Your task to perform on an android device: turn notification dots on Image 0: 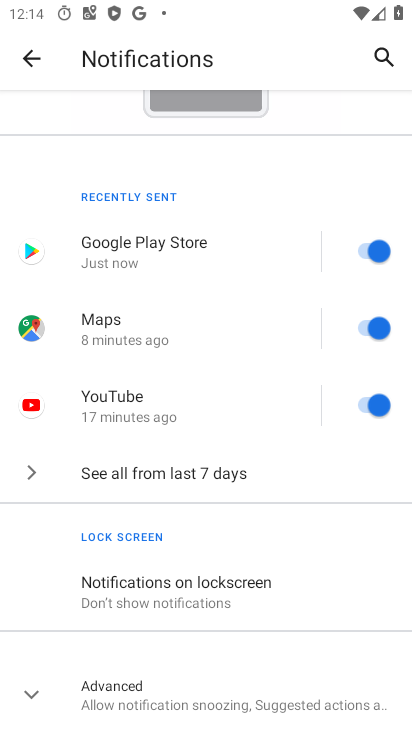
Step 0: press home button
Your task to perform on an android device: turn notification dots on Image 1: 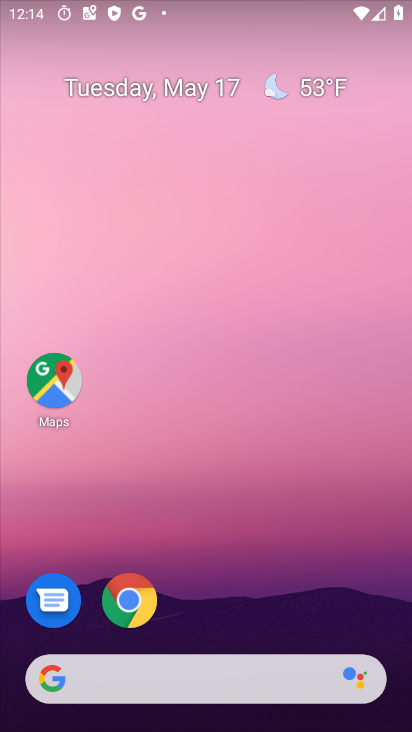
Step 1: drag from (253, 625) to (337, 42)
Your task to perform on an android device: turn notification dots on Image 2: 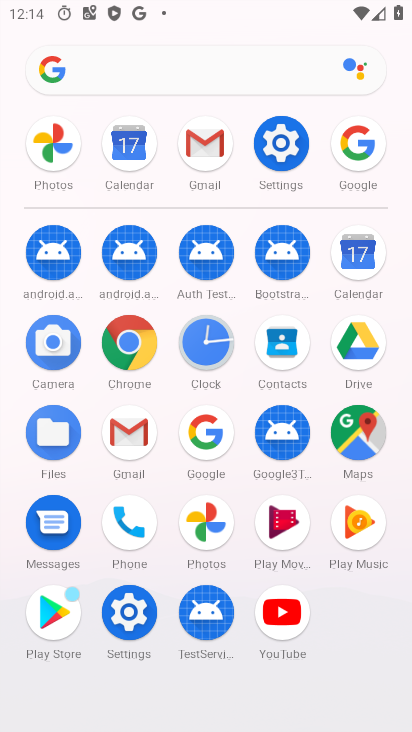
Step 2: click (287, 153)
Your task to perform on an android device: turn notification dots on Image 3: 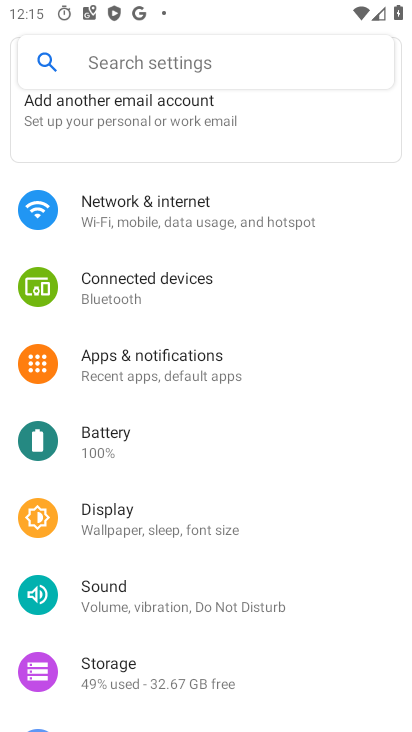
Step 3: click (147, 362)
Your task to perform on an android device: turn notification dots on Image 4: 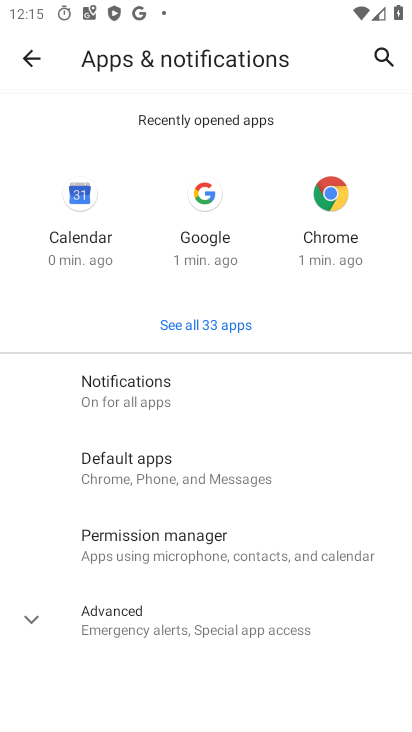
Step 4: click (147, 390)
Your task to perform on an android device: turn notification dots on Image 5: 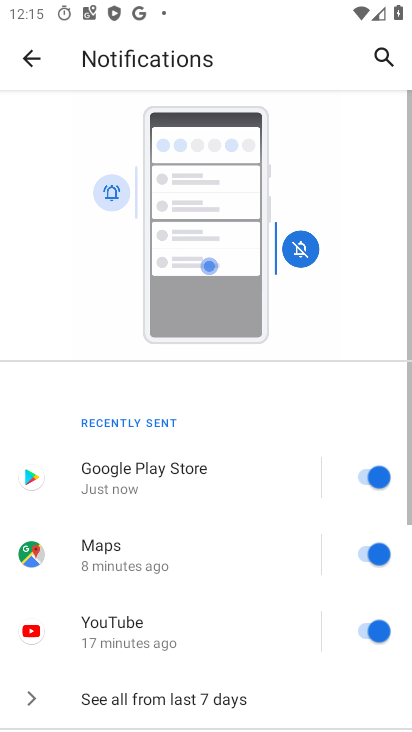
Step 5: drag from (152, 560) to (266, 61)
Your task to perform on an android device: turn notification dots on Image 6: 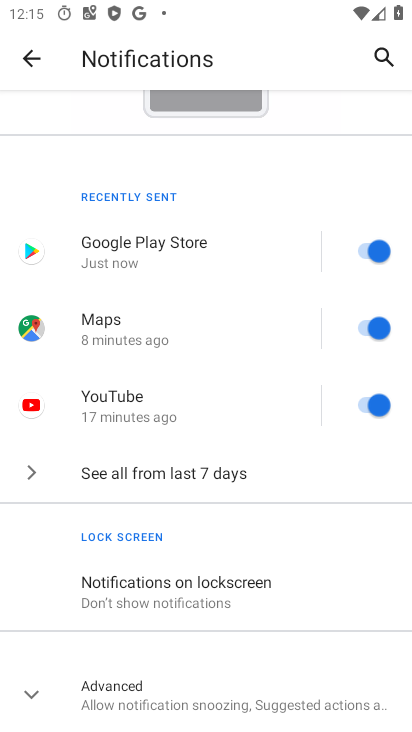
Step 6: click (147, 668)
Your task to perform on an android device: turn notification dots on Image 7: 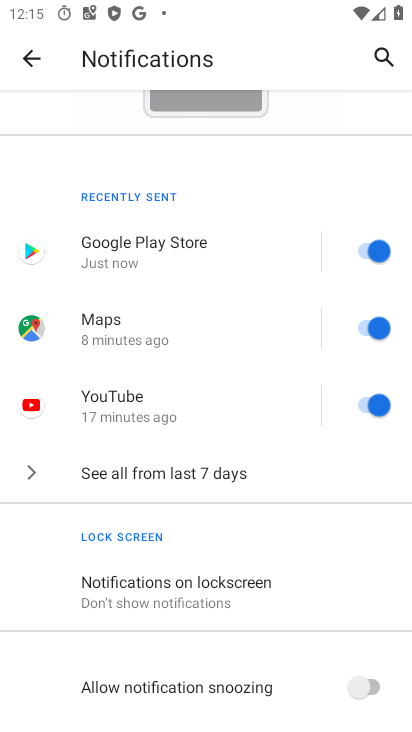
Step 7: task complete